Your task to perform on an android device: Search for sushi restaurants on Maps Image 0: 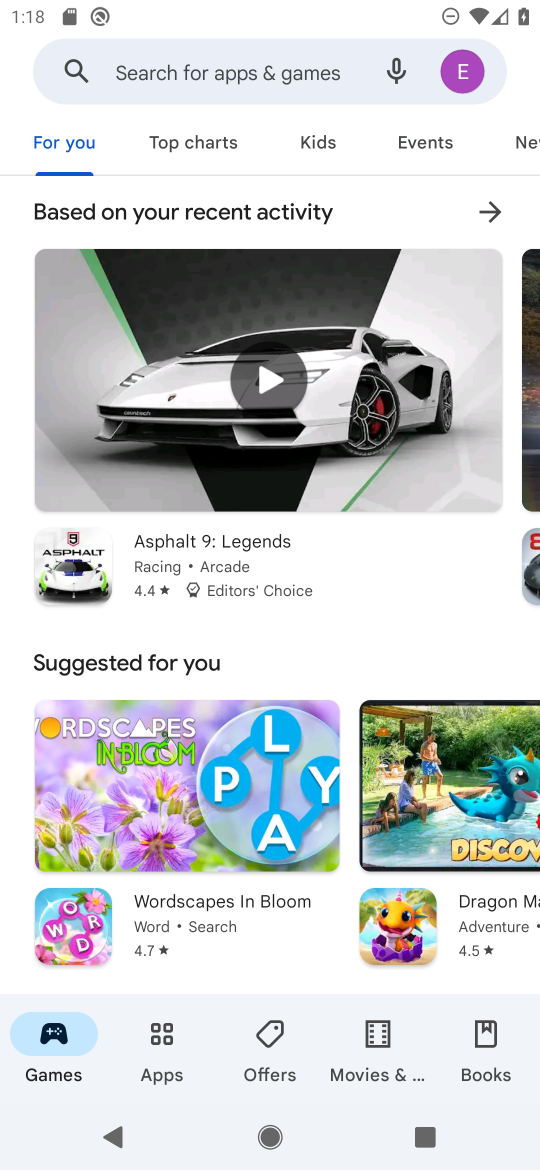
Step 0: press back button
Your task to perform on an android device: Search for sushi restaurants on Maps Image 1: 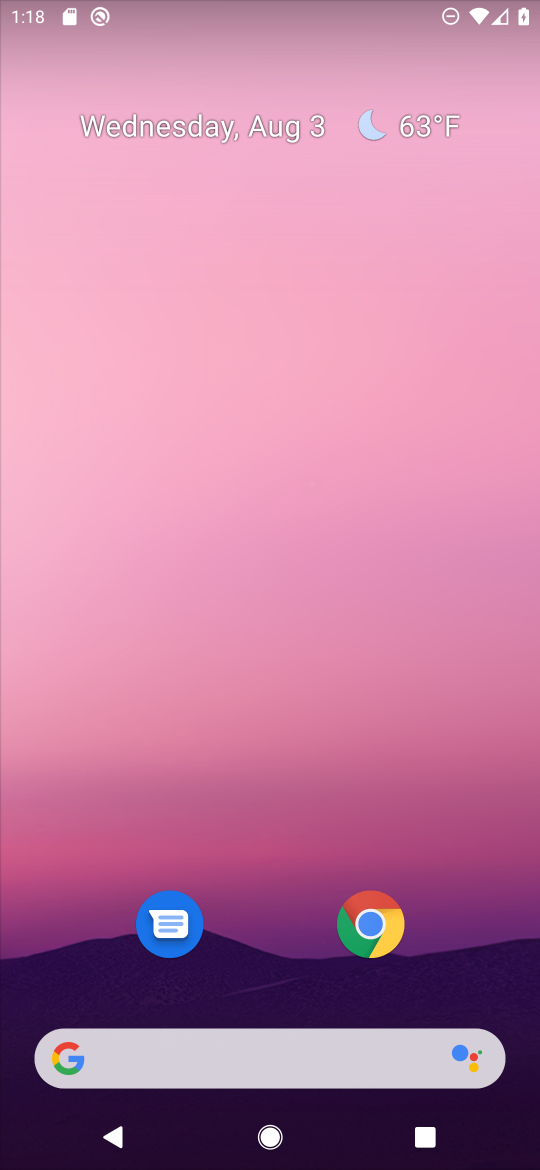
Step 1: drag from (111, 966) to (282, 5)
Your task to perform on an android device: Search for sushi restaurants on Maps Image 2: 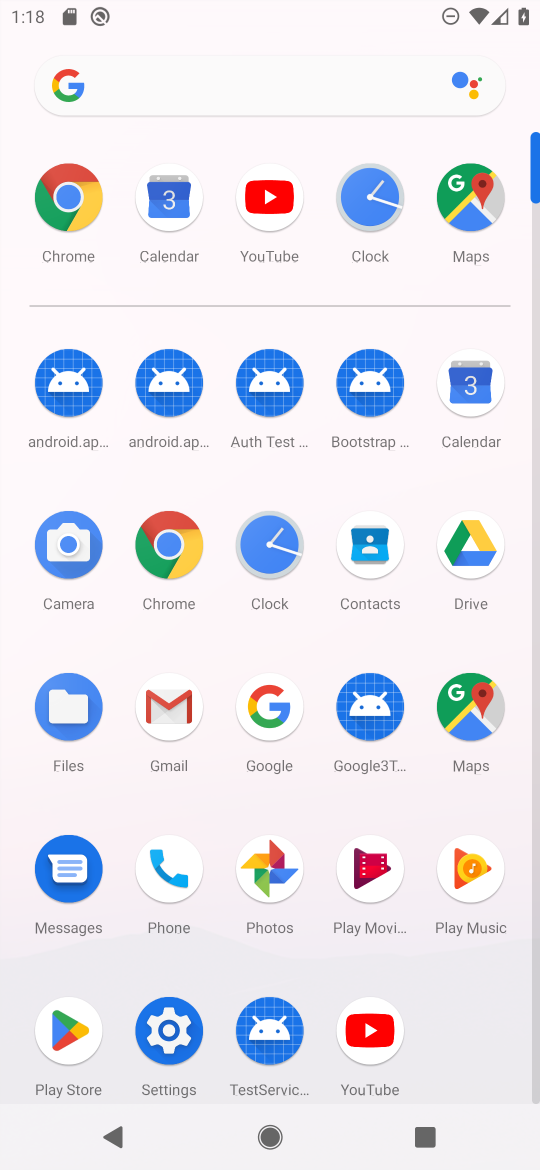
Step 2: click (468, 217)
Your task to perform on an android device: Search for sushi restaurants on Maps Image 3: 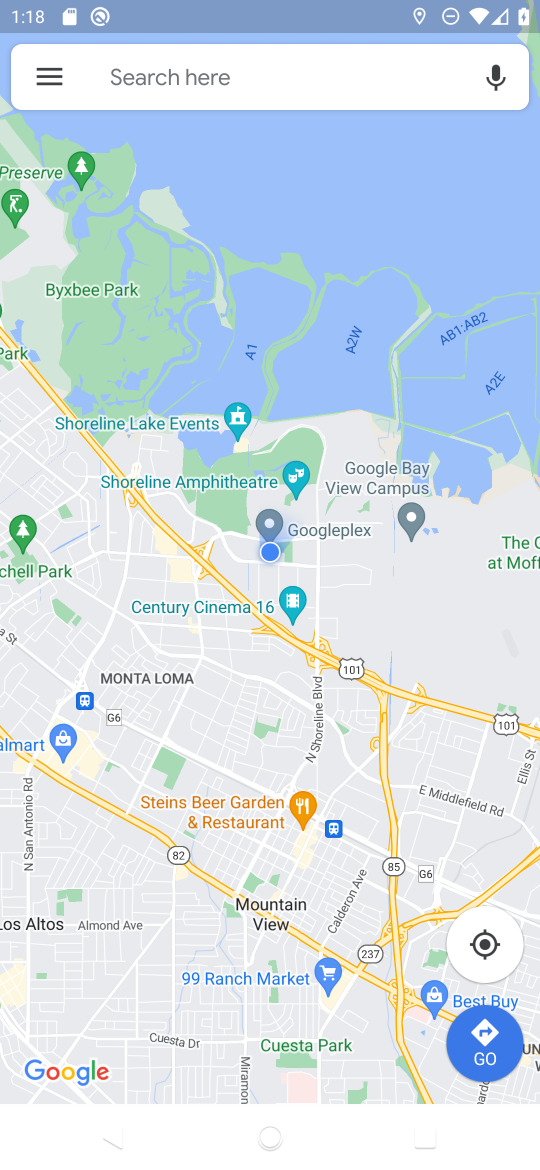
Step 3: click (241, 75)
Your task to perform on an android device: Search for sushi restaurants on Maps Image 4: 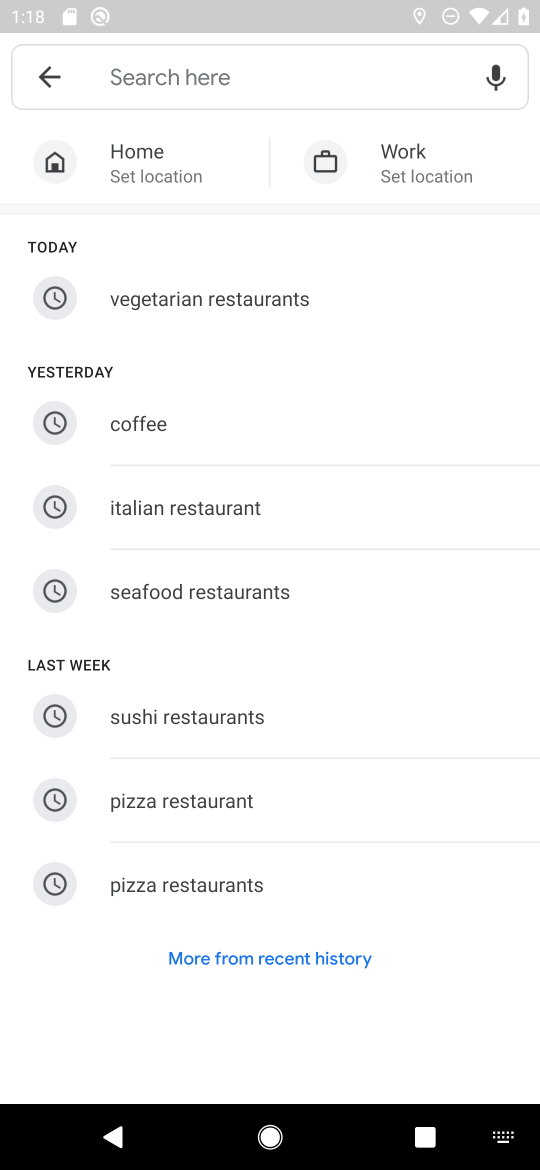
Step 4: type "sushi"
Your task to perform on an android device: Search for sushi restaurants on Maps Image 5: 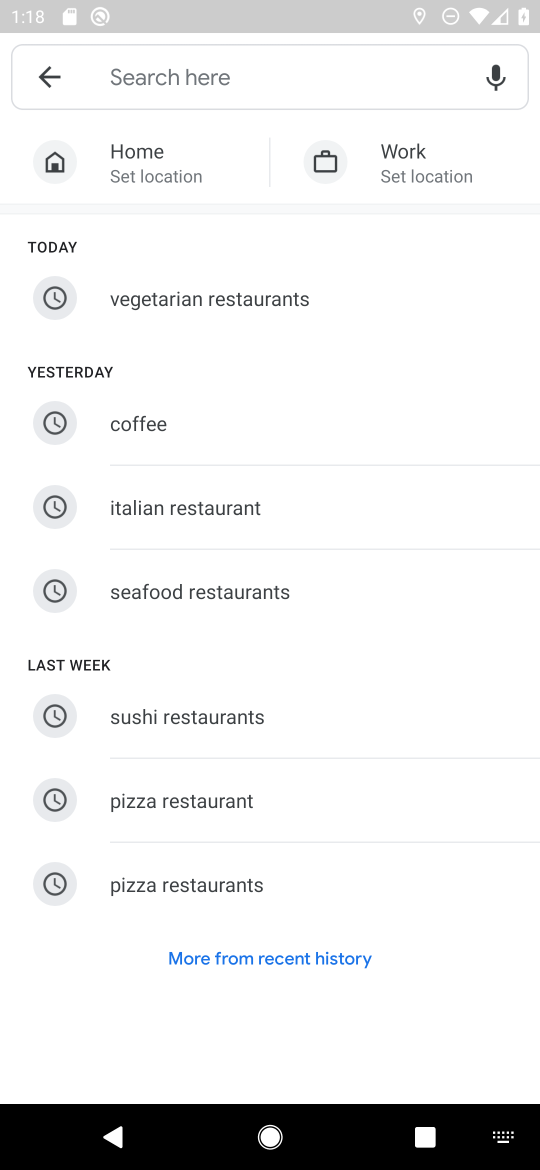
Step 5: click (204, 721)
Your task to perform on an android device: Search for sushi restaurants on Maps Image 6: 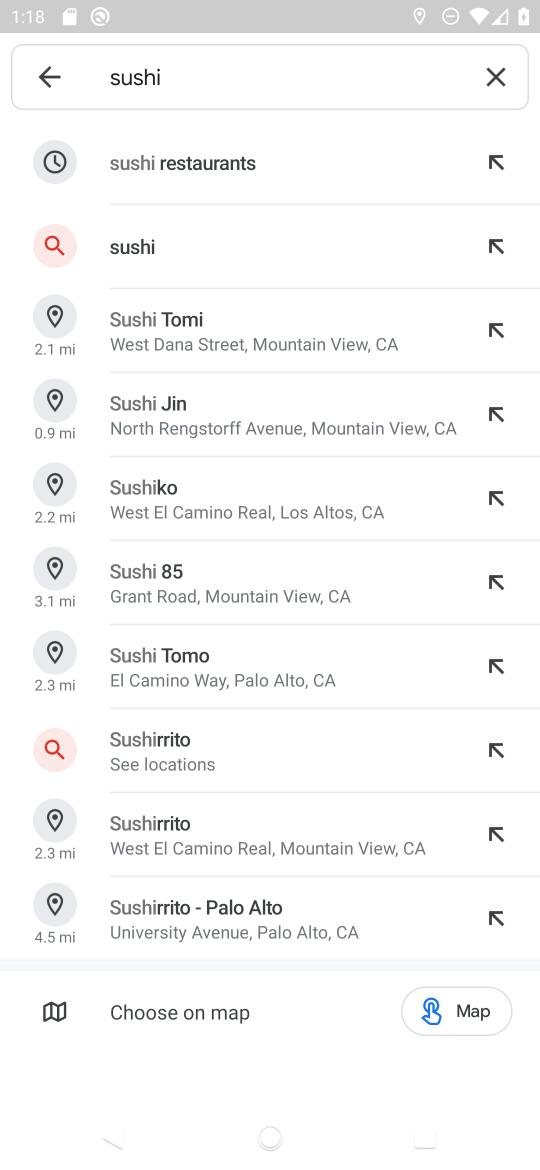
Step 6: click (155, 162)
Your task to perform on an android device: Search for sushi restaurants on Maps Image 7: 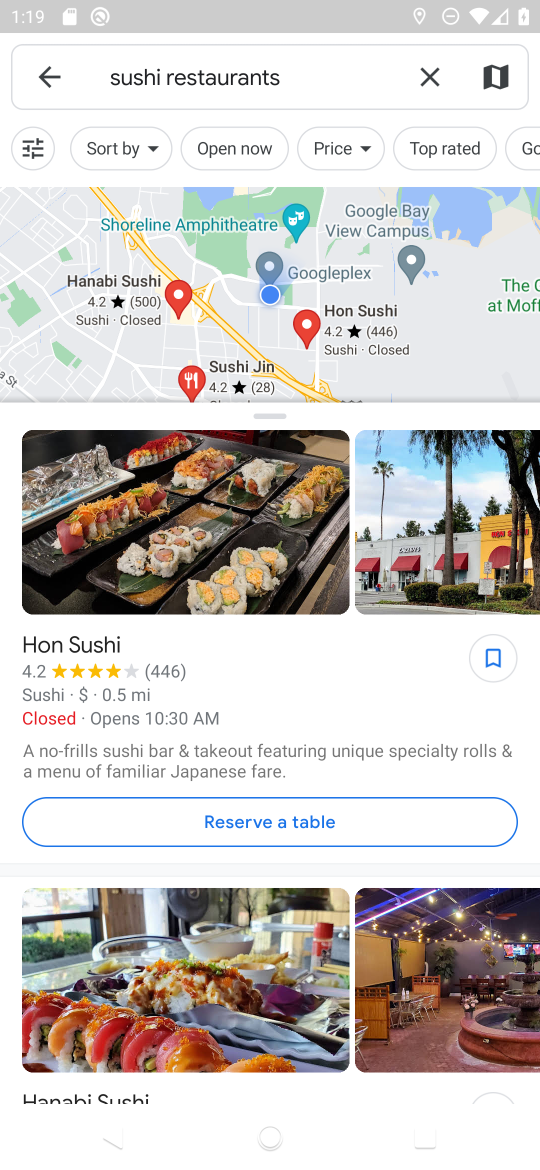
Step 7: task complete